Your task to perform on an android device: toggle priority inbox in the gmail app Image 0: 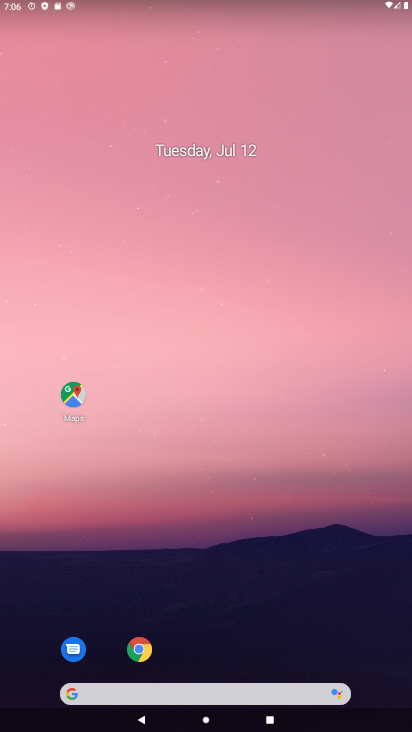
Step 0: drag from (182, 697) to (151, 209)
Your task to perform on an android device: toggle priority inbox in the gmail app Image 1: 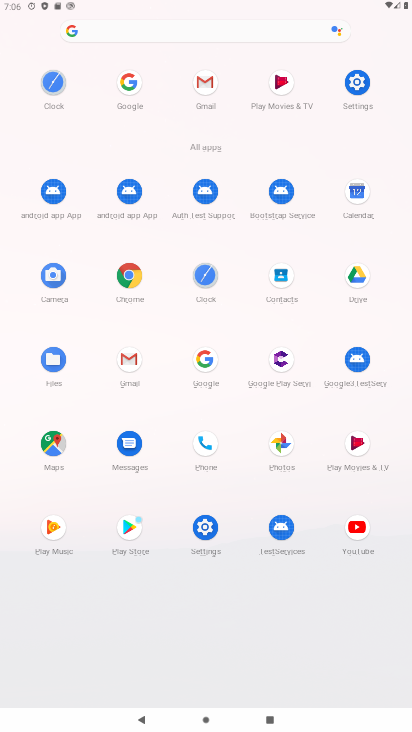
Step 1: click (128, 358)
Your task to perform on an android device: toggle priority inbox in the gmail app Image 2: 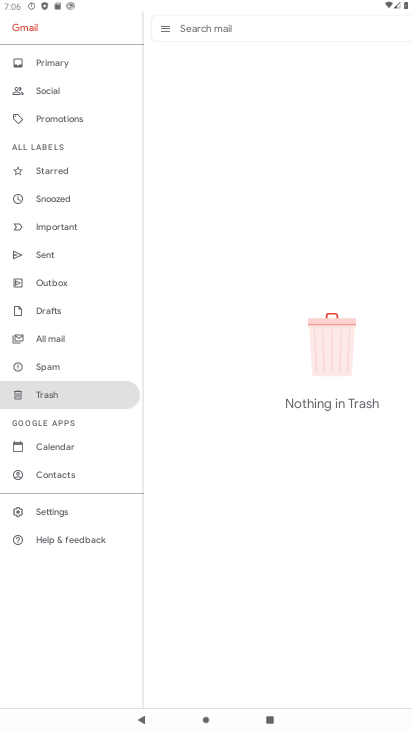
Step 2: click (51, 509)
Your task to perform on an android device: toggle priority inbox in the gmail app Image 3: 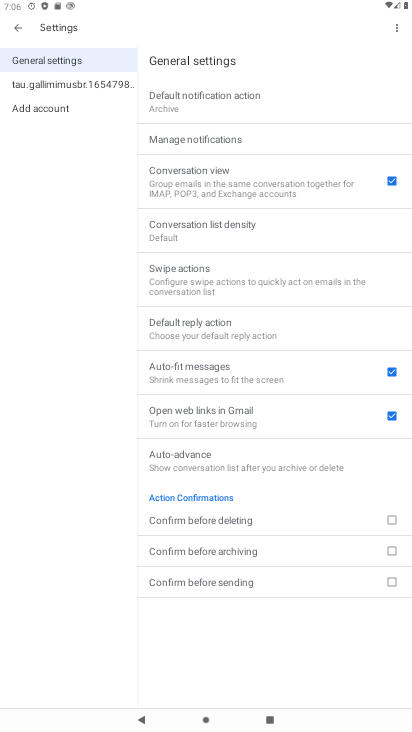
Step 3: click (102, 79)
Your task to perform on an android device: toggle priority inbox in the gmail app Image 4: 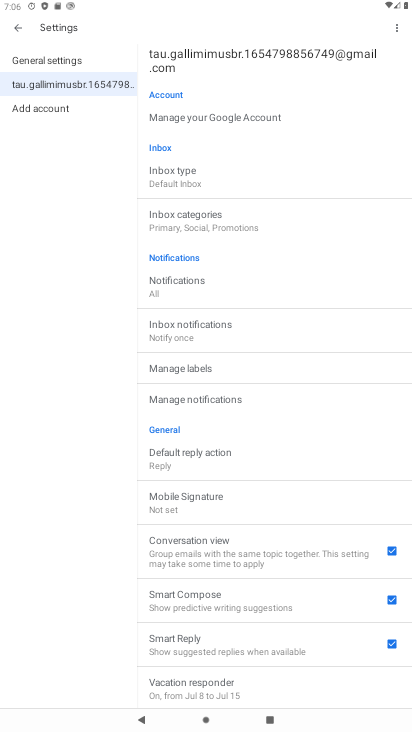
Step 4: click (173, 178)
Your task to perform on an android device: toggle priority inbox in the gmail app Image 5: 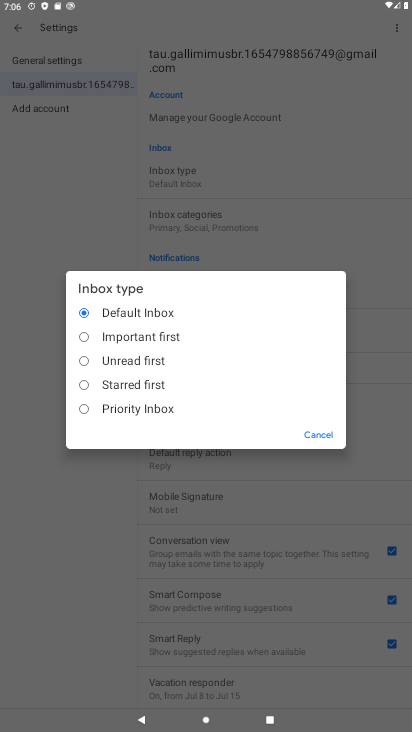
Step 5: click (82, 410)
Your task to perform on an android device: toggle priority inbox in the gmail app Image 6: 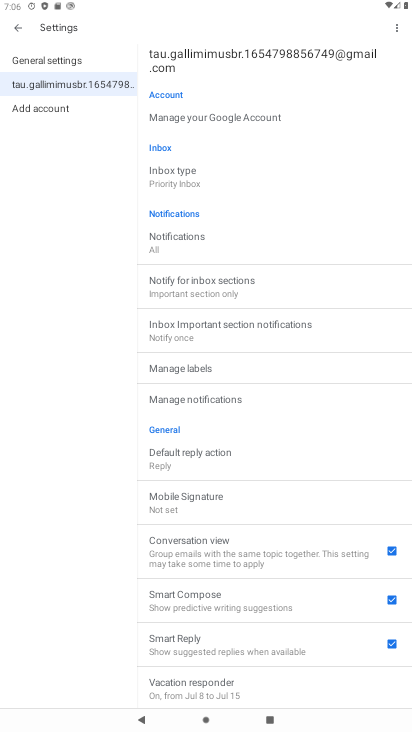
Step 6: task complete